Your task to perform on an android device: turn pop-ups off in chrome Image 0: 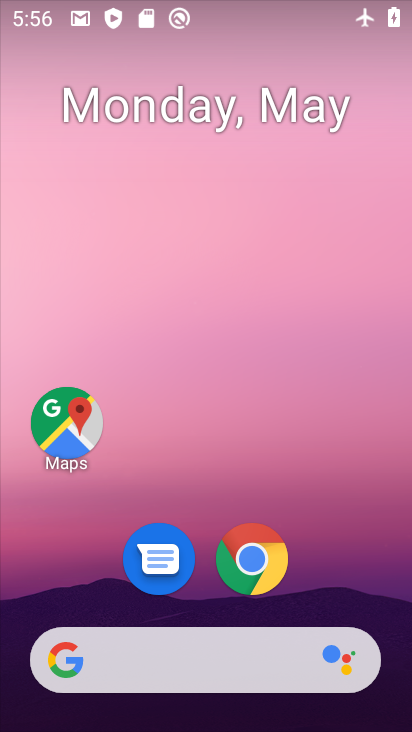
Step 0: click (260, 554)
Your task to perform on an android device: turn pop-ups off in chrome Image 1: 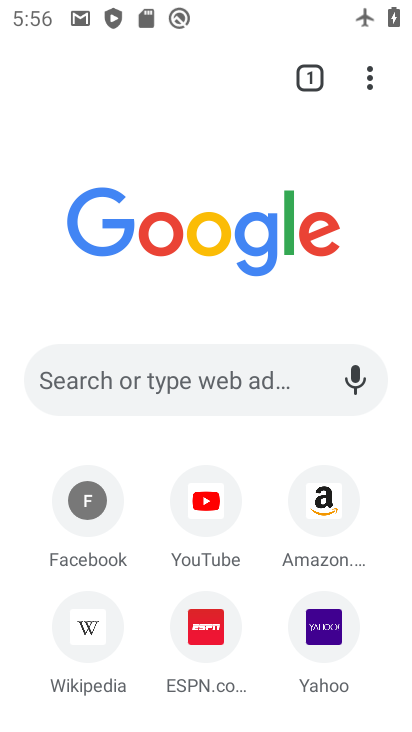
Step 1: click (370, 74)
Your task to perform on an android device: turn pop-ups off in chrome Image 2: 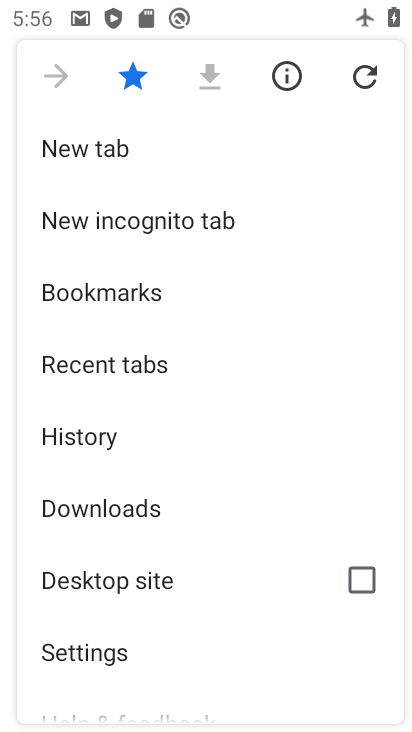
Step 2: drag from (247, 546) to (236, 208)
Your task to perform on an android device: turn pop-ups off in chrome Image 3: 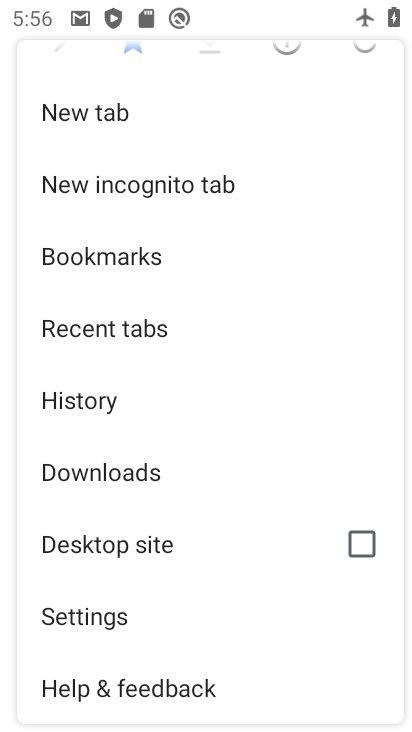
Step 3: click (93, 621)
Your task to perform on an android device: turn pop-ups off in chrome Image 4: 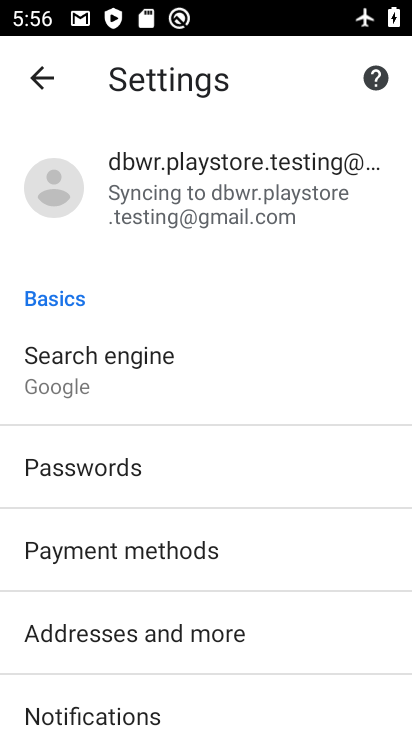
Step 4: drag from (186, 649) to (173, 311)
Your task to perform on an android device: turn pop-ups off in chrome Image 5: 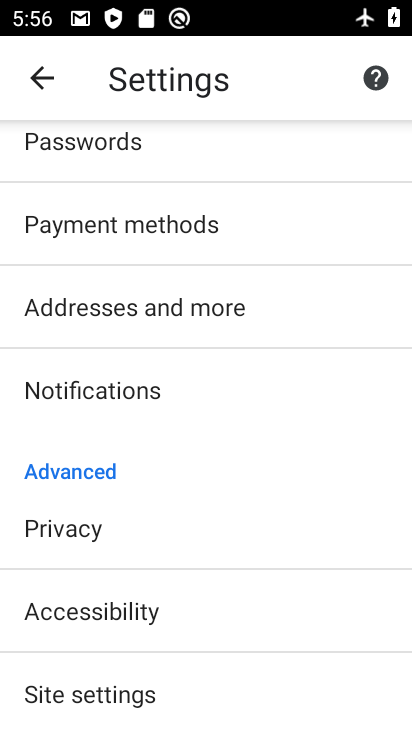
Step 5: drag from (230, 630) to (218, 344)
Your task to perform on an android device: turn pop-ups off in chrome Image 6: 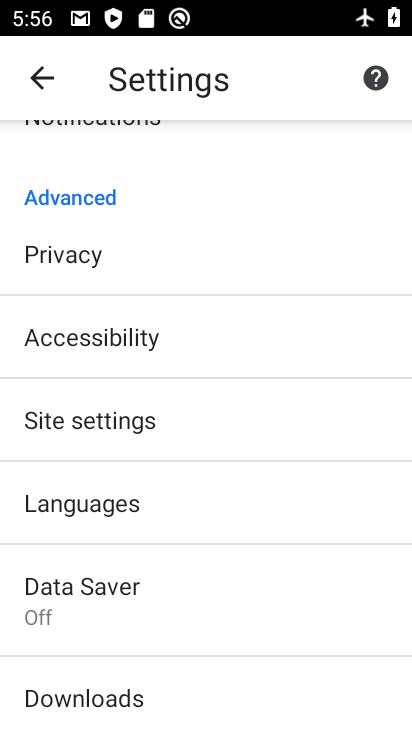
Step 6: click (109, 417)
Your task to perform on an android device: turn pop-ups off in chrome Image 7: 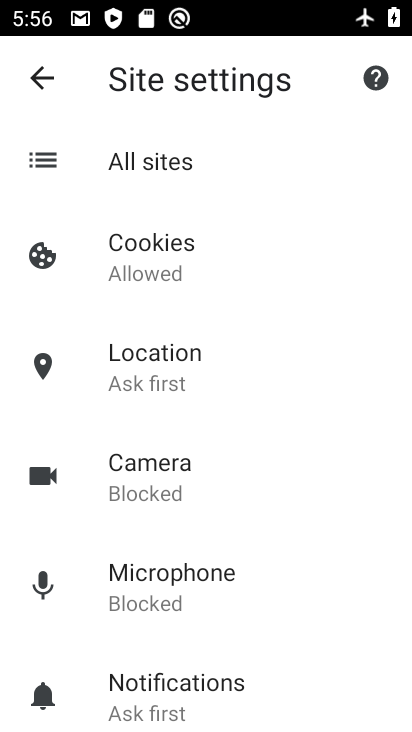
Step 7: drag from (205, 504) to (137, 70)
Your task to perform on an android device: turn pop-ups off in chrome Image 8: 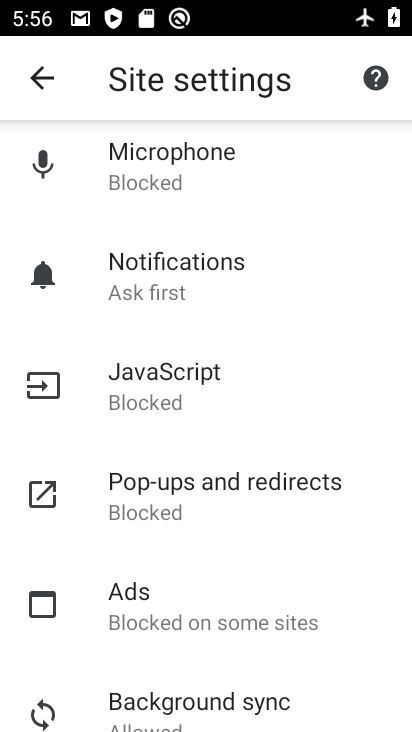
Step 8: click (213, 468)
Your task to perform on an android device: turn pop-ups off in chrome Image 9: 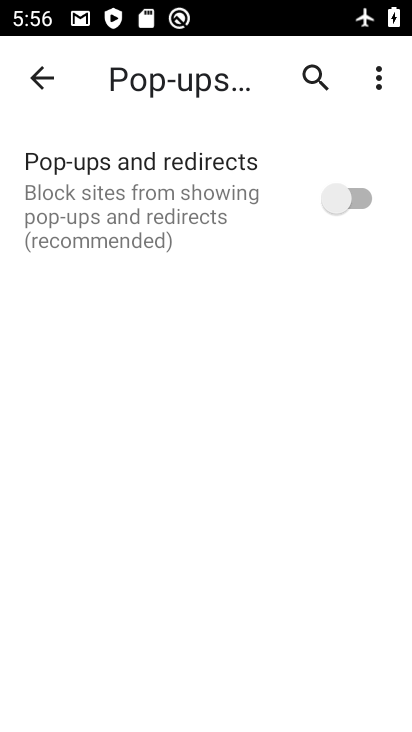
Step 9: task complete